Your task to perform on an android device: toggle airplane mode Image 0: 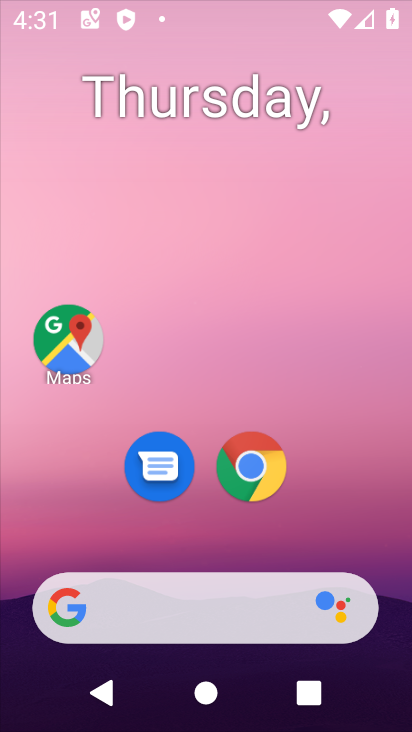
Step 0: press home button
Your task to perform on an android device: toggle airplane mode Image 1: 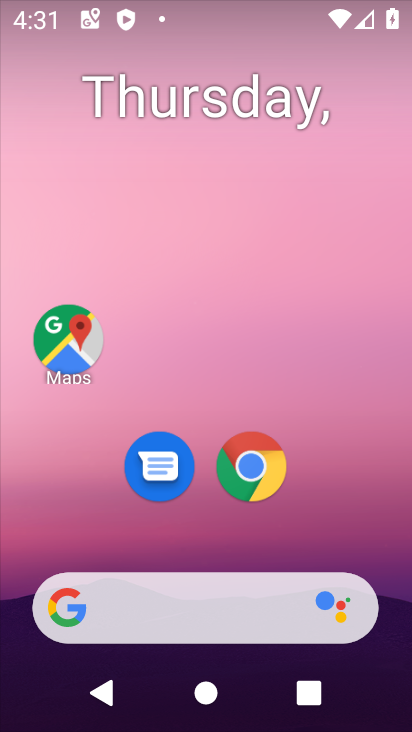
Step 1: drag from (251, 1) to (271, 541)
Your task to perform on an android device: toggle airplane mode Image 2: 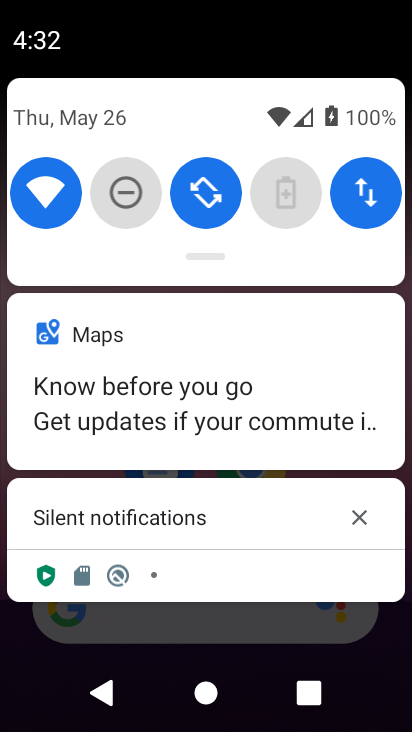
Step 2: drag from (215, 255) to (218, 727)
Your task to perform on an android device: toggle airplane mode Image 3: 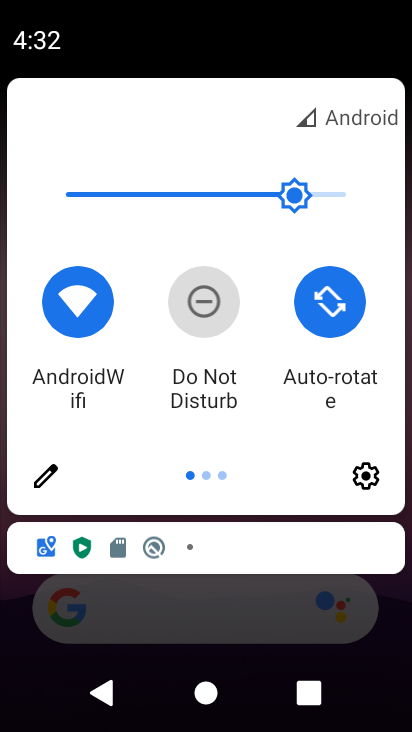
Step 3: drag from (338, 323) to (0, 340)
Your task to perform on an android device: toggle airplane mode Image 4: 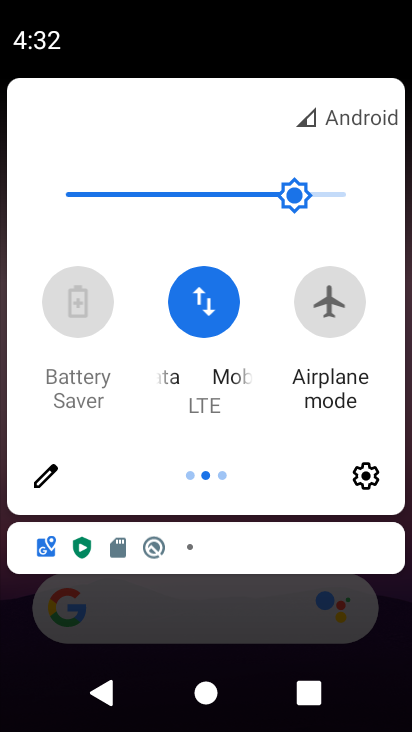
Step 4: click (323, 309)
Your task to perform on an android device: toggle airplane mode Image 5: 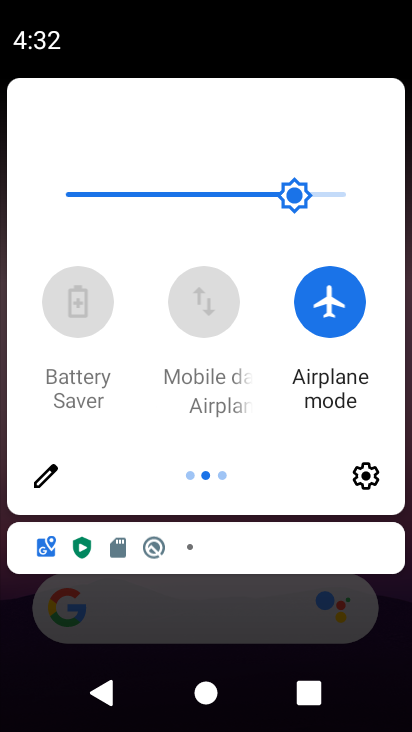
Step 5: task complete